Your task to perform on an android device: Open Google Maps Image 0: 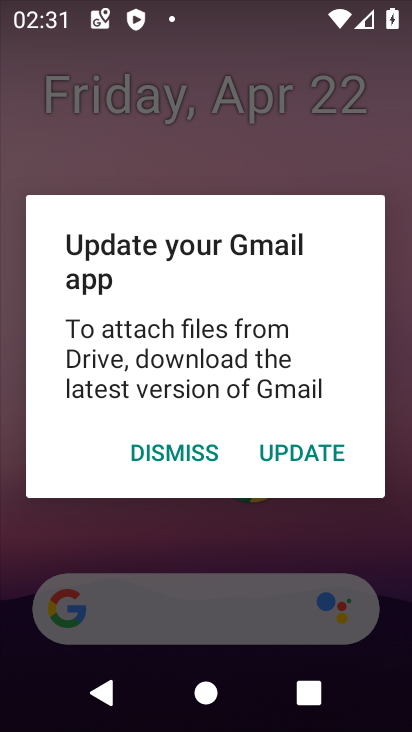
Step 0: press home button
Your task to perform on an android device: Open Google Maps Image 1: 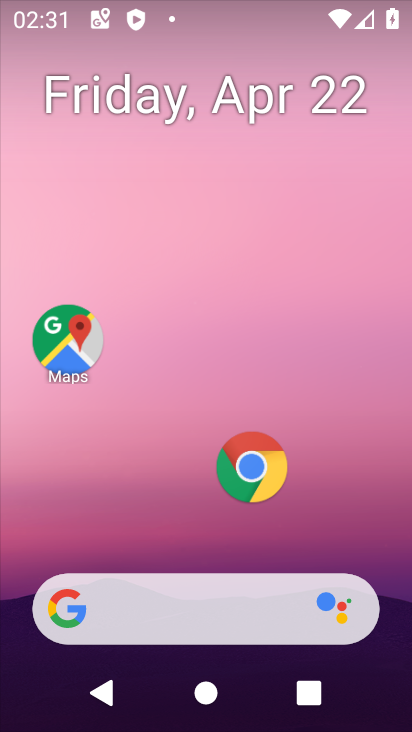
Step 1: click (73, 347)
Your task to perform on an android device: Open Google Maps Image 2: 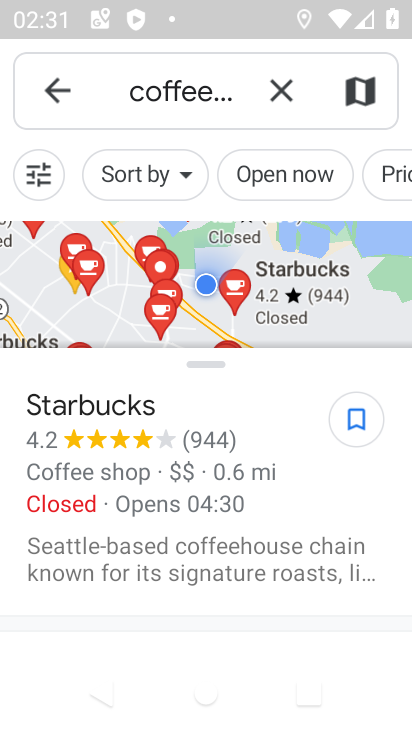
Step 2: task complete